Your task to perform on an android device: change keyboard looks Image 0: 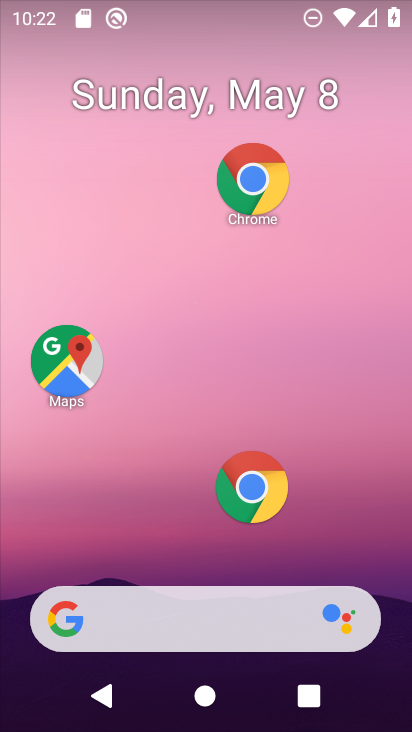
Step 0: drag from (170, 529) to (191, 14)
Your task to perform on an android device: change keyboard looks Image 1: 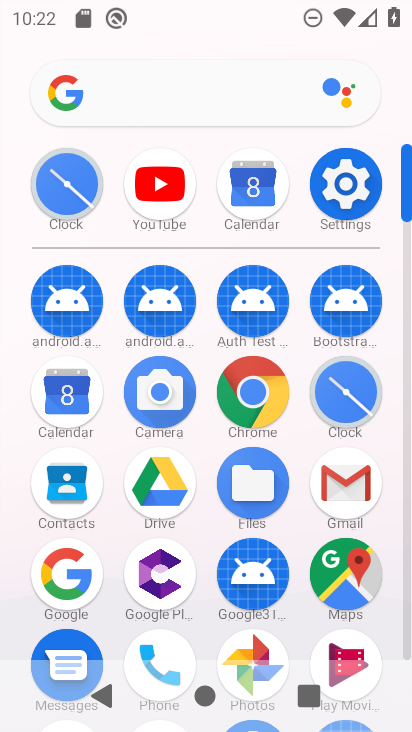
Step 1: click (362, 192)
Your task to perform on an android device: change keyboard looks Image 2: 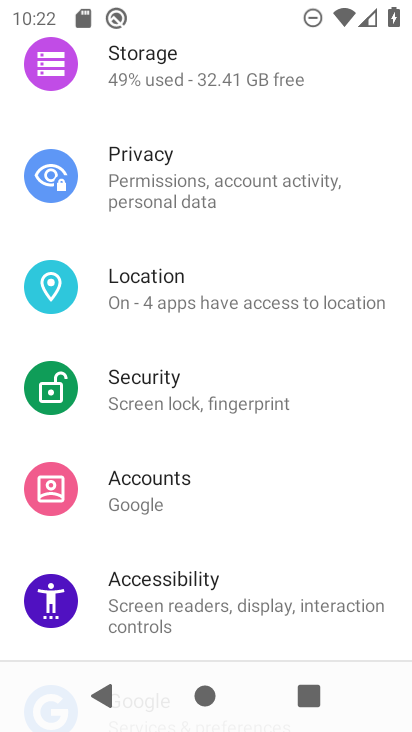
Step 2: drag from (271, 532) to (312, 152)
Your task to perform on an android device: change keyboard looks Image 3: 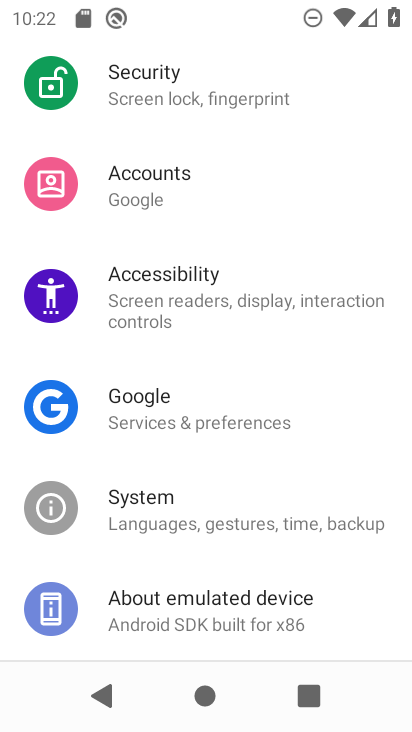
Step 3: click (187, 506)
Your task to perform on an android device: change keyboard looks Image 4: 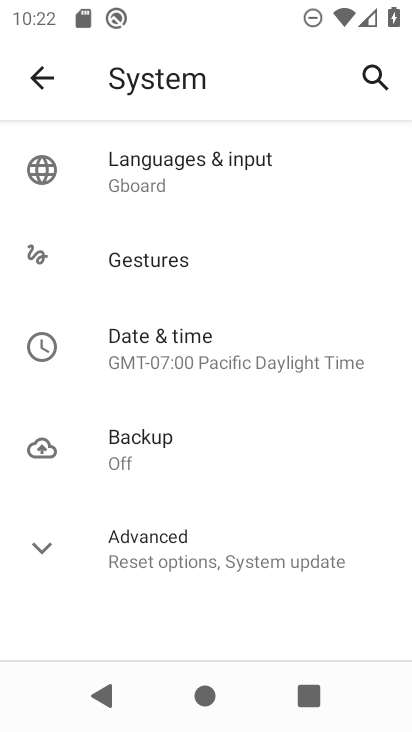
Step 4: click (204, 177)
Your task to perform on an android device: change keyboard looks Image 5: 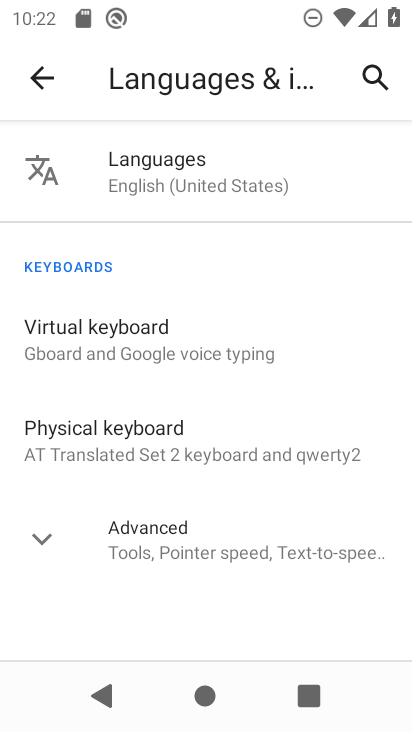
Step 5: click (156, 348)
Your task to perform on an android device: change keyboard looks Image 6: 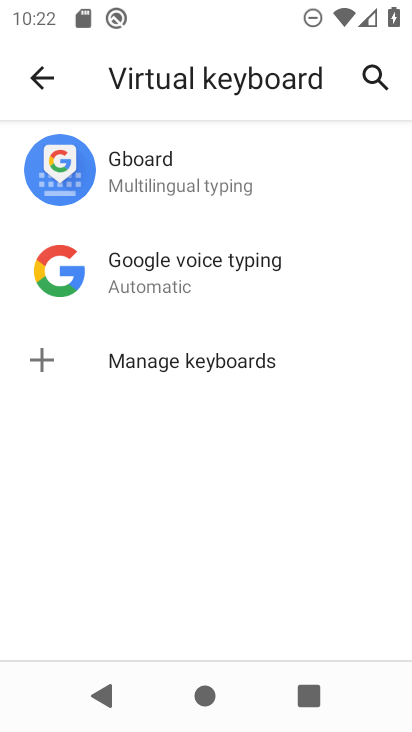
Step 6: click (183, 173)
Your task to perform on an android device: change keyboard looks Image 7: 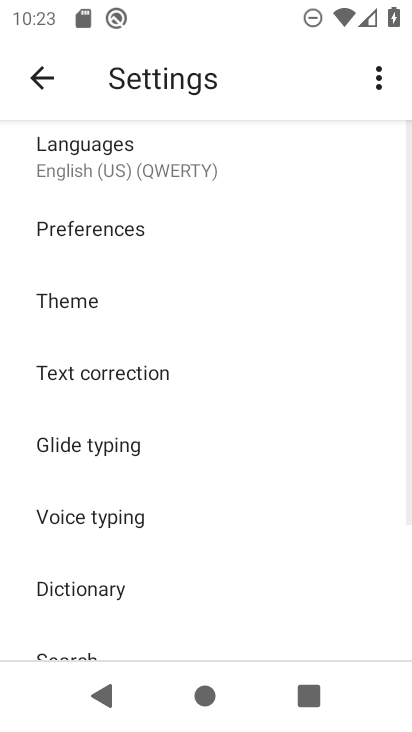
Step 7: click (162, 302)
Your task to perform on an android device: change keyboard looks Image 8: 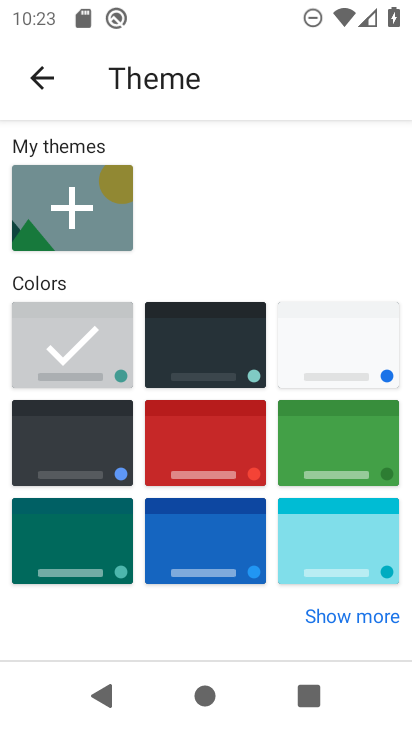
Step 8: click (186, 337)
Your task to perform on an android device: change keyboard looks Image 9: 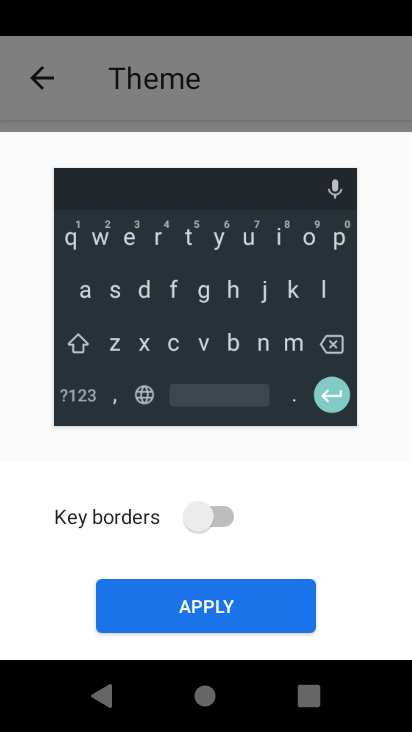
Step 9: click (226, 505)
Your task to perform on an android device: change keyboard looks Image 10: 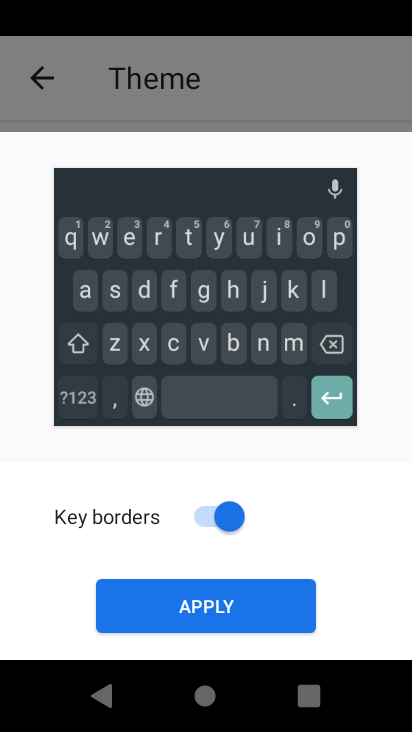
Step 10: click (233, 600)
Your task to perform on an android device: change keyboard looks Image 11: 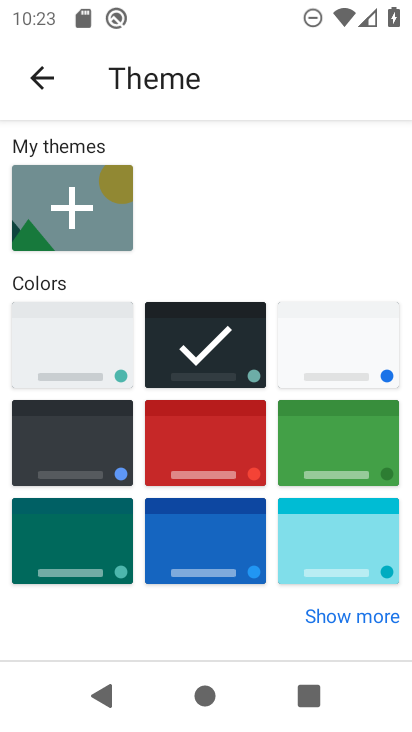
Step 11: click (47, 60)
Your task to perform on an android device: change keyboard looks Image 12: 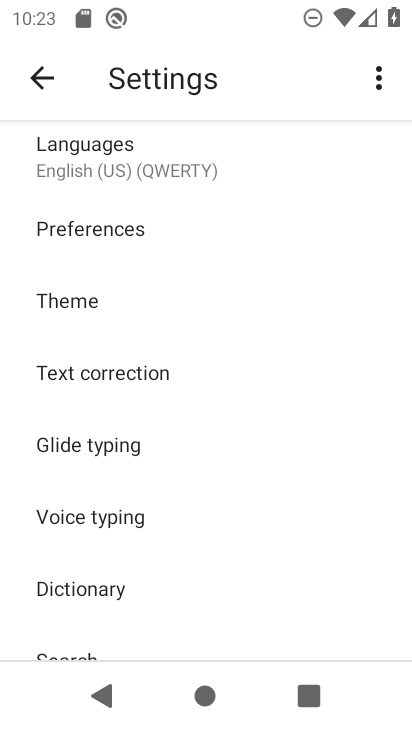
Step 12: task complete